Your task to perform on an android device: Search for pizza restaurants on Maps Image 0: 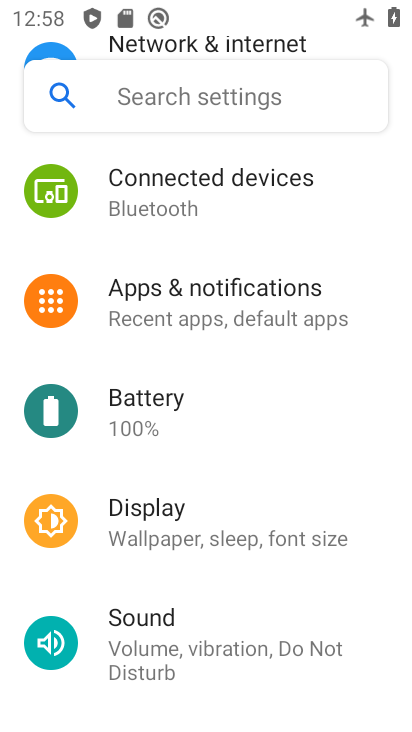
Step 0: press home button
Your task to perform on an android device: Search for pizza restaurants on Maps Image 1: 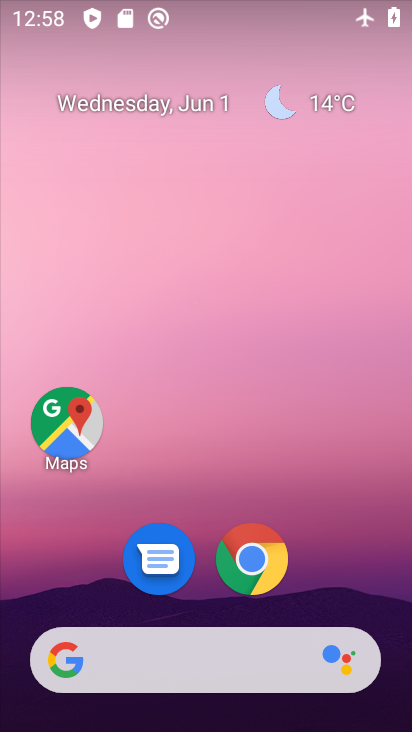
Step 1: click (46, 440)
Your task to perform on an android device: Search for pizza restaurants on Maps Image 2: 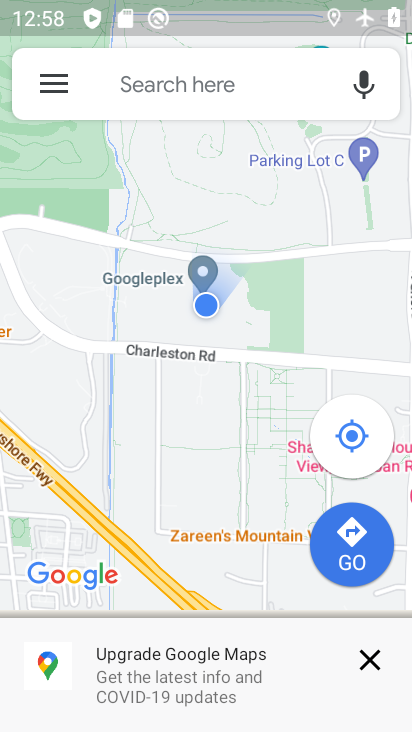
Step 2: click (153, 98)
Your task to perform on an android device: Search for pizza restaurants on Maps Image 3: 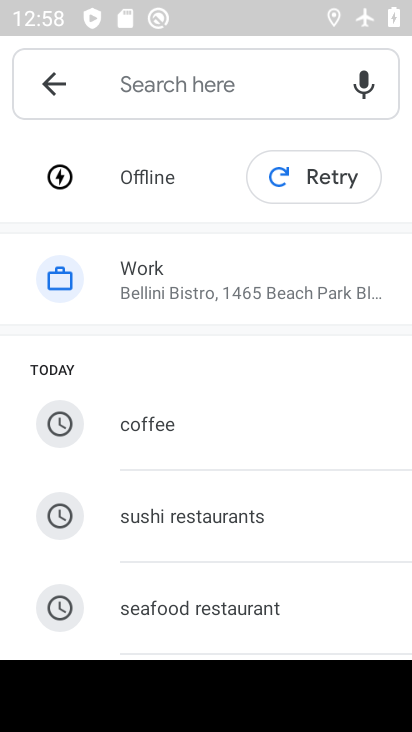
Step 3: type "pizza restaurants"
Your task to perform on an android device: Search for pizza restaurants on Maps Image 4: 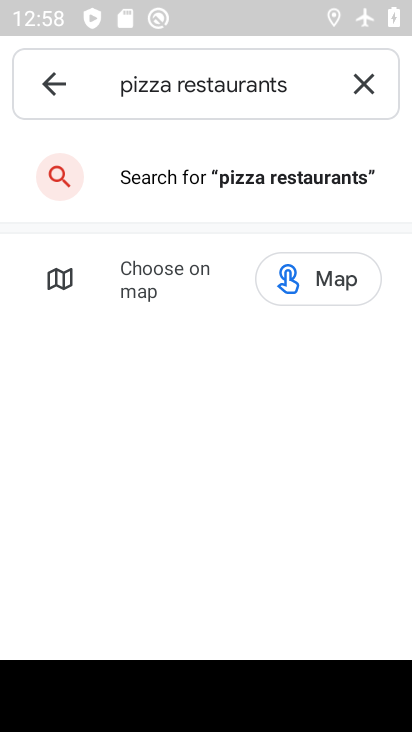
Step 4: click (102, 174)
Your task to perform on an android device: Search for pizza restaurants on Maps Image 5: 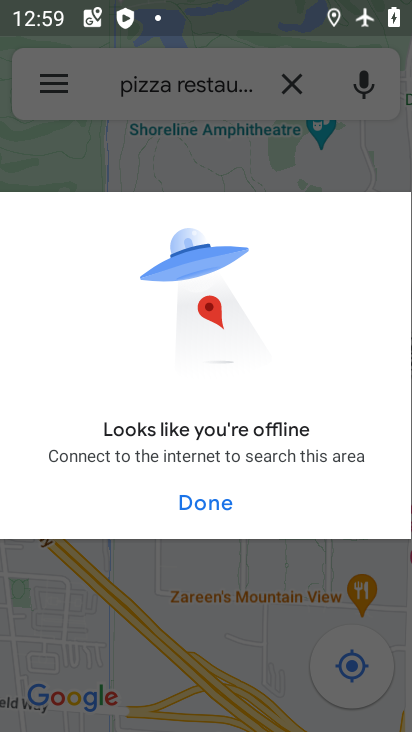
Step 5: task complete